Your task to perform on an android device: toggle location history Image 0: 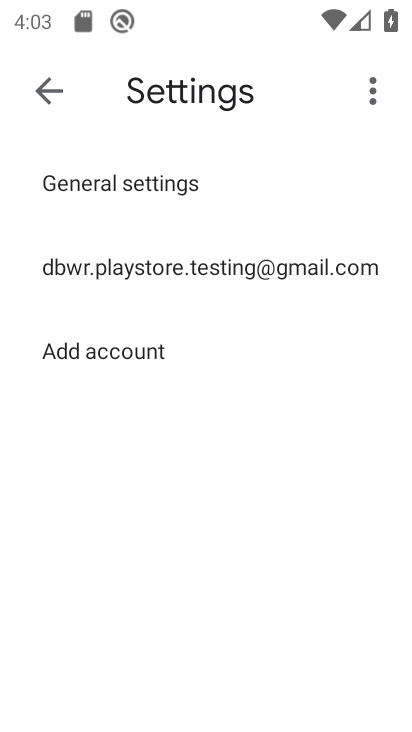
Step 0: press home button
Your task to perform on an android device: toggle location history Image 1: 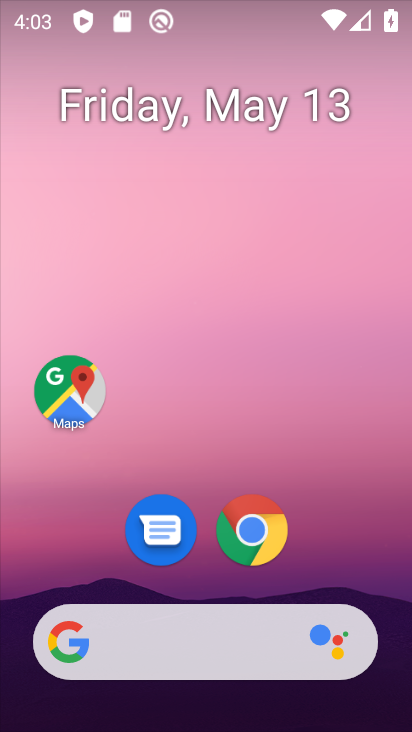
Step 1: drag from (267, 468) to (261, 170)
Your task to perform on an android device: toggle location history Image 2: 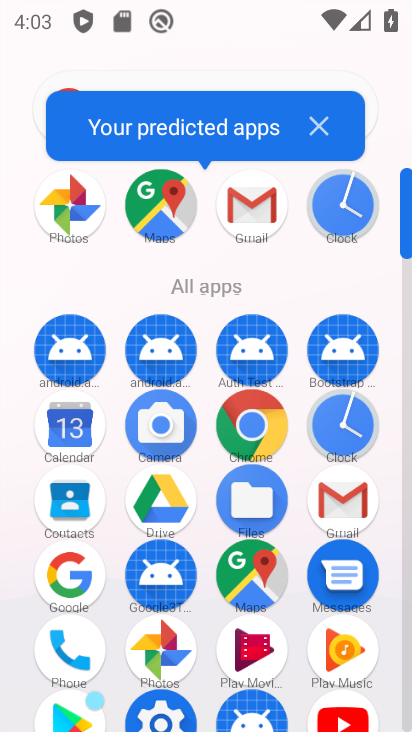
Step 2: drag from (212, 471) to (251, 315)
Your task to perform on an android device: toggle location history Image 3: 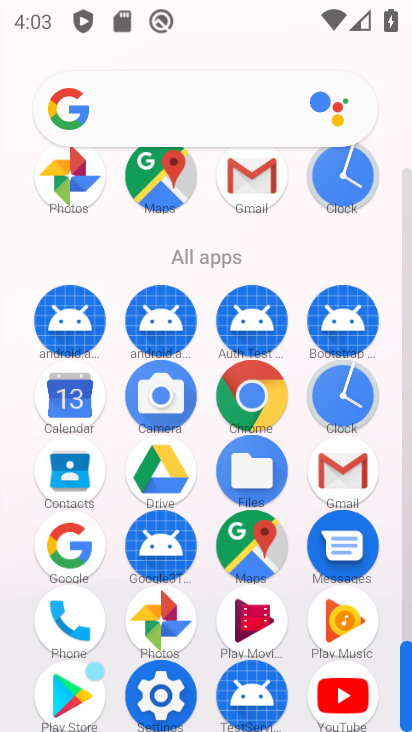
Step 3: click (174, 679)
Your task to perform on an android device: toggle location history Image 4: 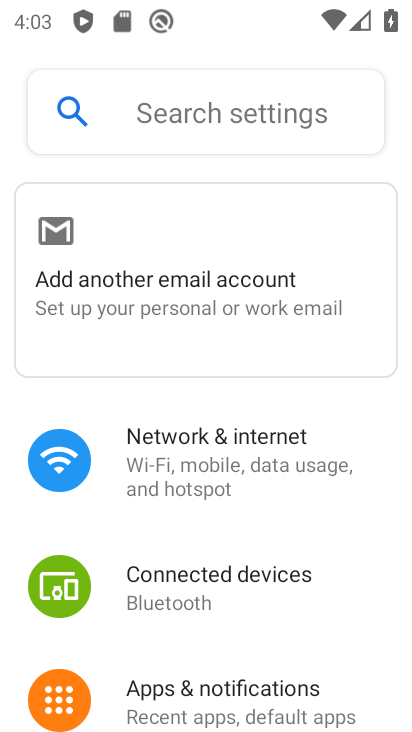
Step 4: drag from (214, 584) to (213, 146)
Your task to perform on an android device: toggle location history Image 5: 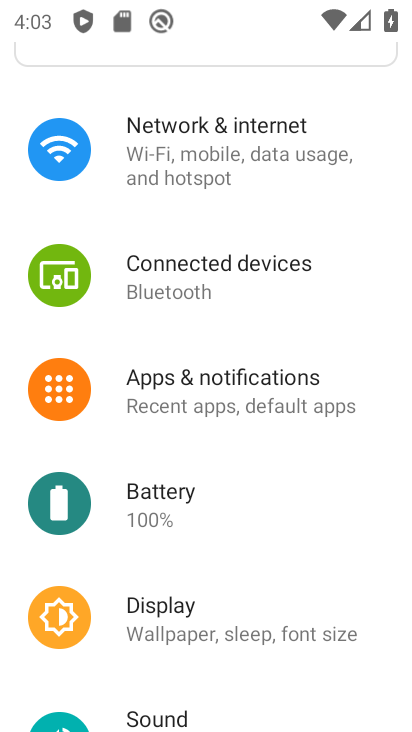
Step 5: drag from (189, 562) to (187, 167)
Your task to perform on an android device: toggle location history Image 6: 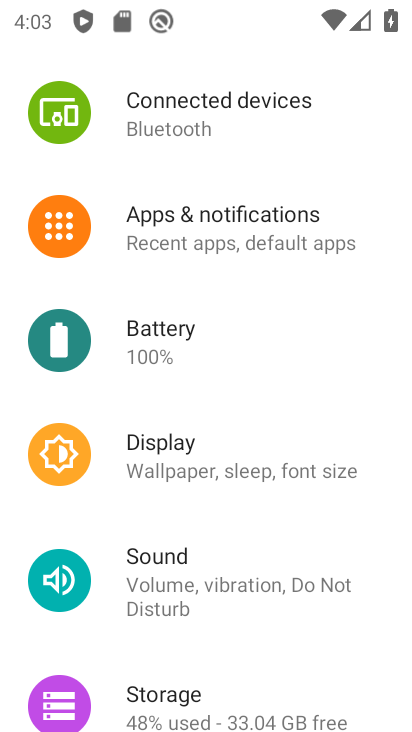
Step 6: drag from (167, 663) to (227, 334)
Your task to perform on an android device: toggle location history Image 7: 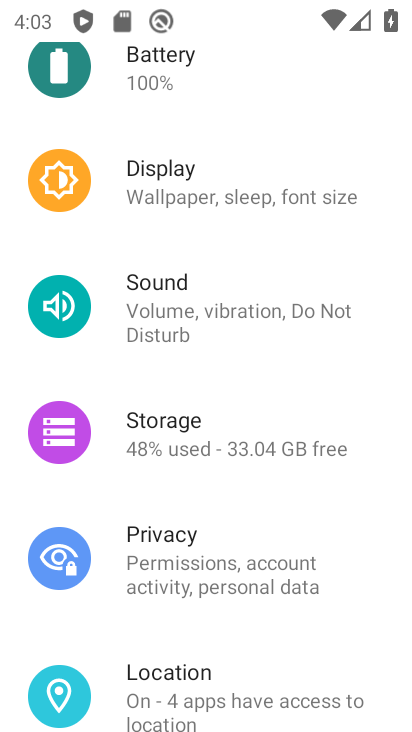
Step 7: click (165, 668)
Your task to perform on an android device: toggle location history Image 8: 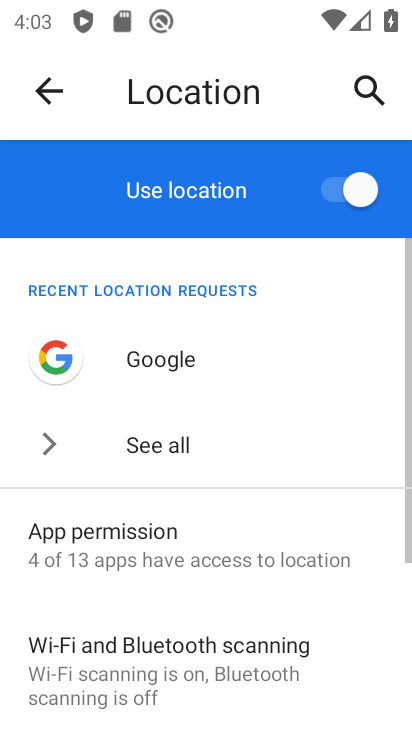
Step 8: drag from (177, 556) to (253, 393)
Your task to perform on an android device: toggle location history Image 9: 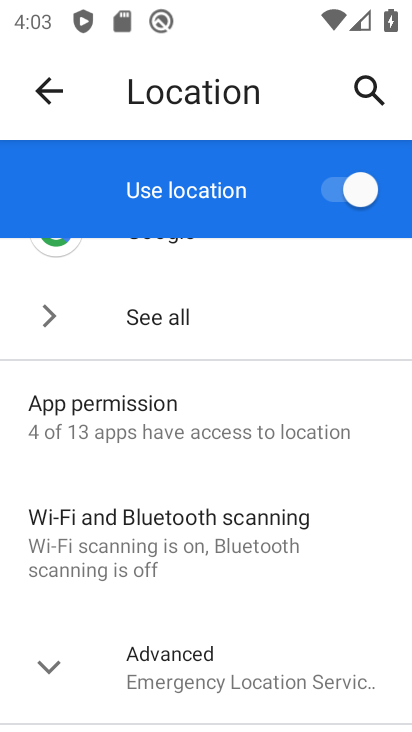
Step 9: click (126, 644)
Your task to perform on an android device: toggle location history Image 10: 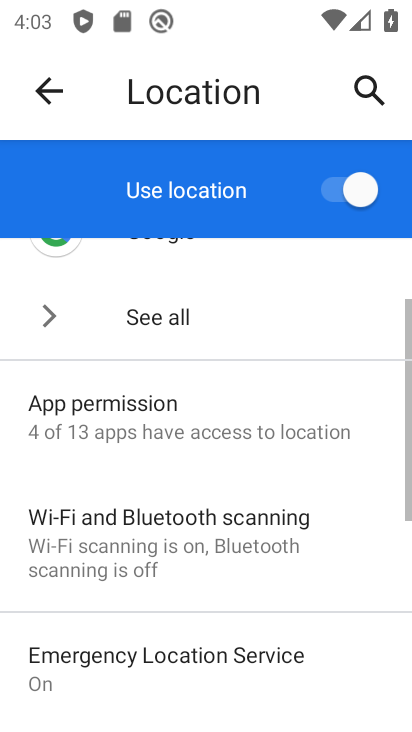
Step 10: drag from (171, 623) to (239, 334)
Your task to perform on an android device: toggle location history Image 11: 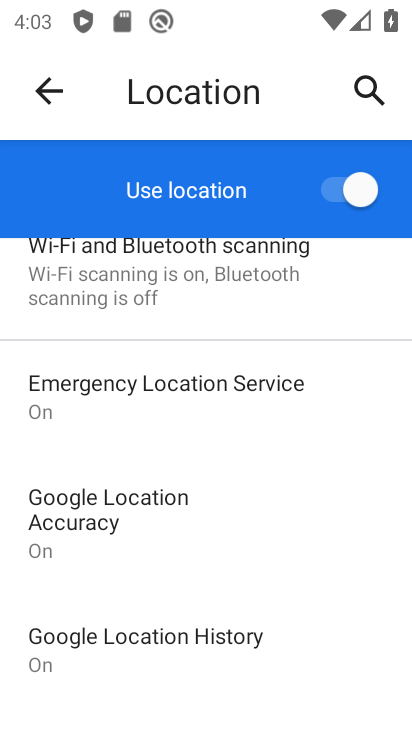
Step 11: click (154, 629)
Your task to perform on an android device: toggle location history Image 12: 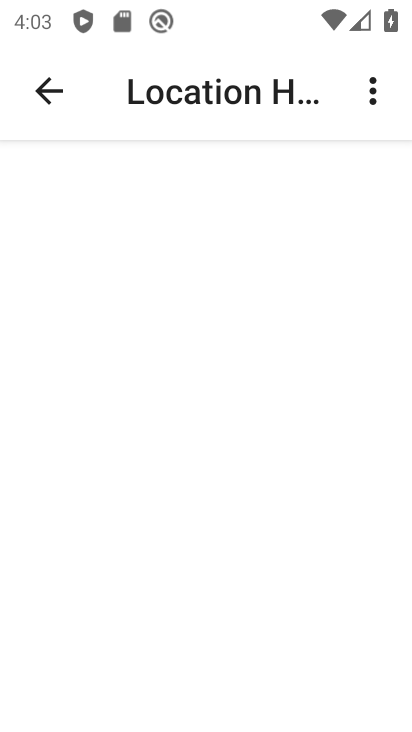
Step 12: task complete